Your task to perform on an android device: Is it going to rain today? Image 0: 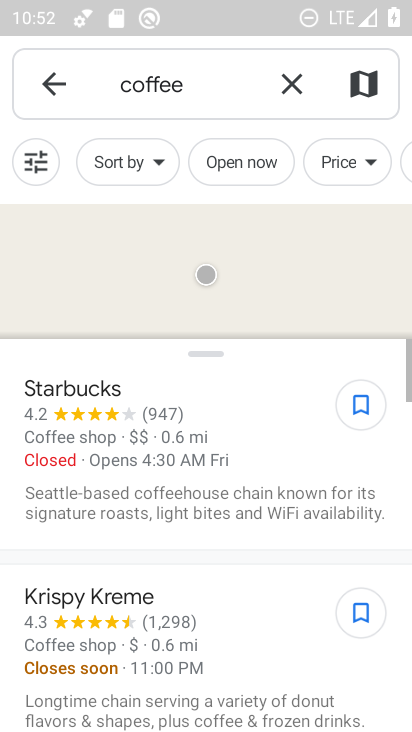
Step 0: press home button
Your task to perform on an android device: Is it going to rain today? Image 1: 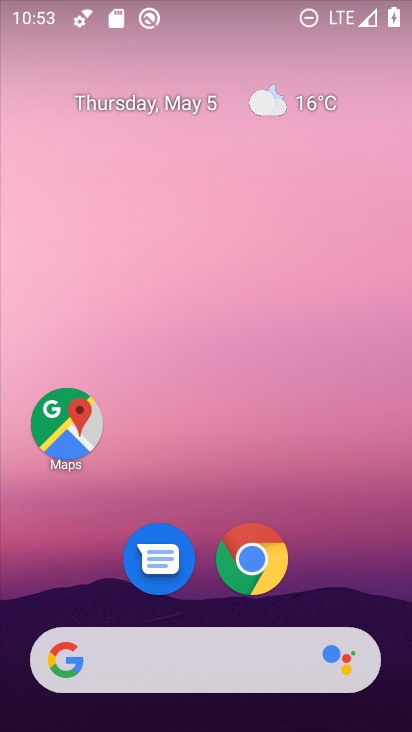
Step 1: click (314, 93)
Your task to perform on an android device: Is it going to rain today? Image 2: 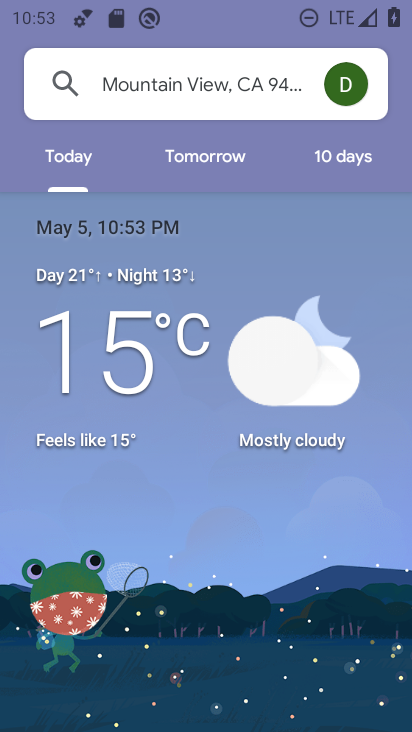
Step 2: task complete